Your task to perform on an android device: When is my next meeting? Image 0: 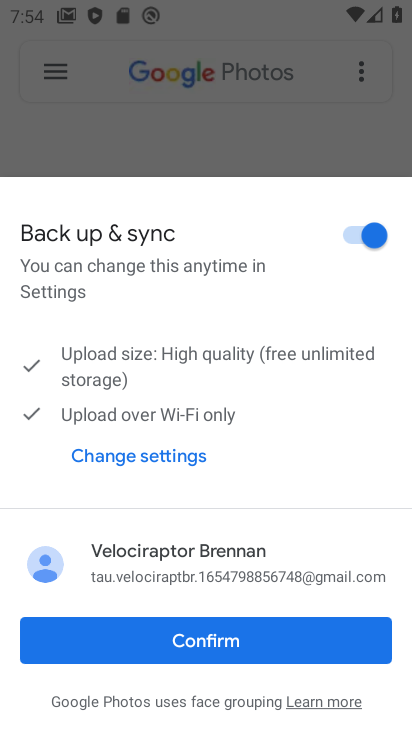
Step 0: press home button
Your task to perform on an android device: When is my next meeting? Image 1: 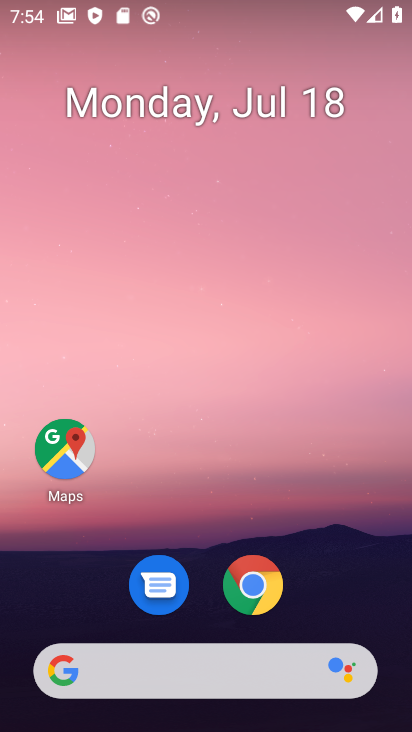
Step 1: drag from (160, 673) to (256, 65)
Your task to perform on an android device: When is my next meeting? Image 2: 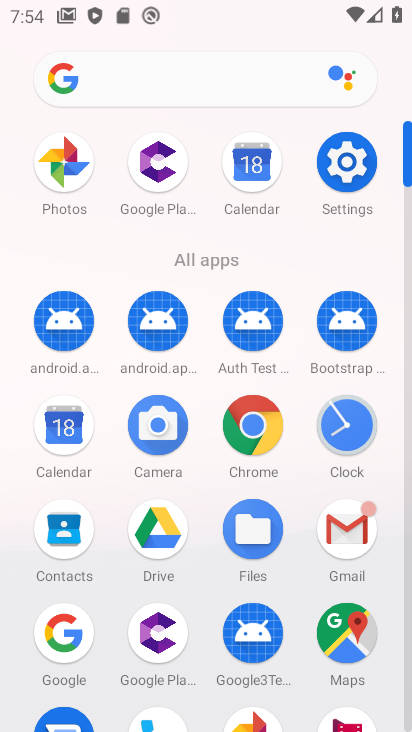
Step 2: click (66, 436)
Your task to perform on an android device: When is my next meeting? Image 3: 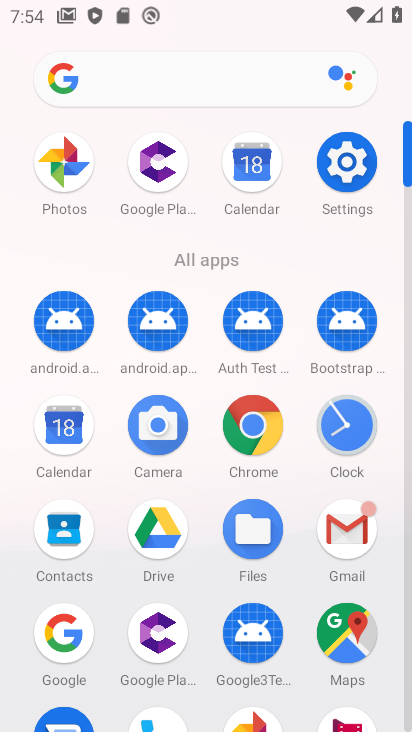
Step 3: click (65, 431)
Your task to perform on an android device: When is my next meeting? Image 4: 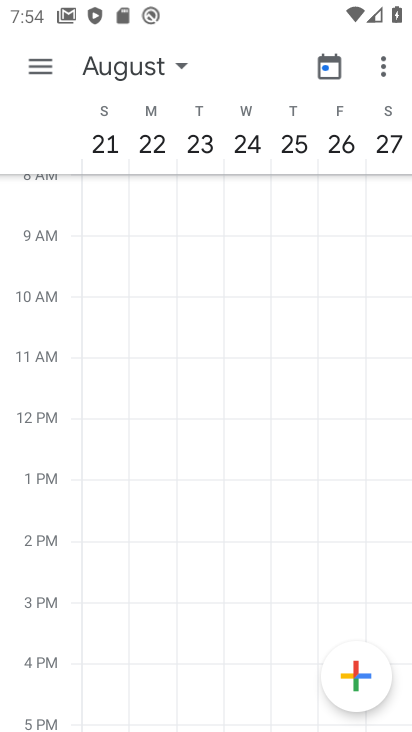
Step 4: click (118, 71)
Your task to perform on an android device: When is my next meeting? Image 5: 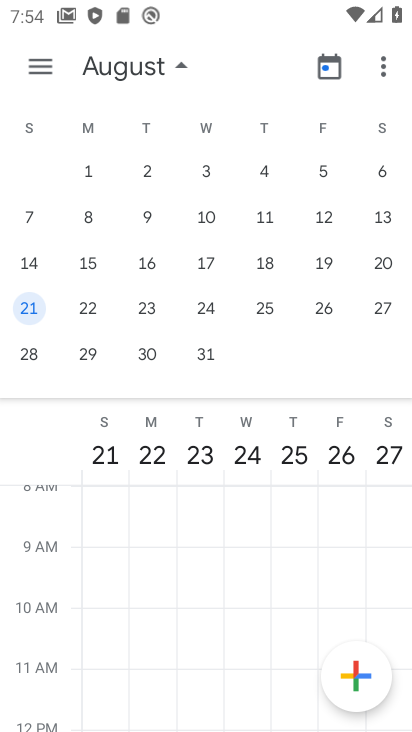
Step 5: drag from (71, 229) to (351, 206)
Your task to perform on an android device: When is my next meeting? Image 6: 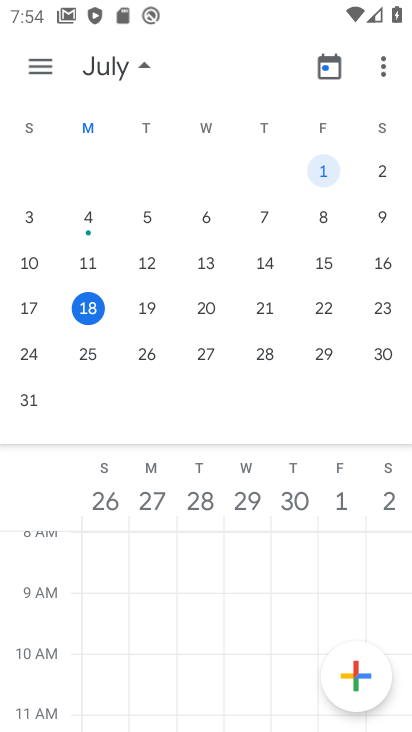
Step 6: click (91, 312)
Your task to perform on an android device: When is my next meeting? Image 7: 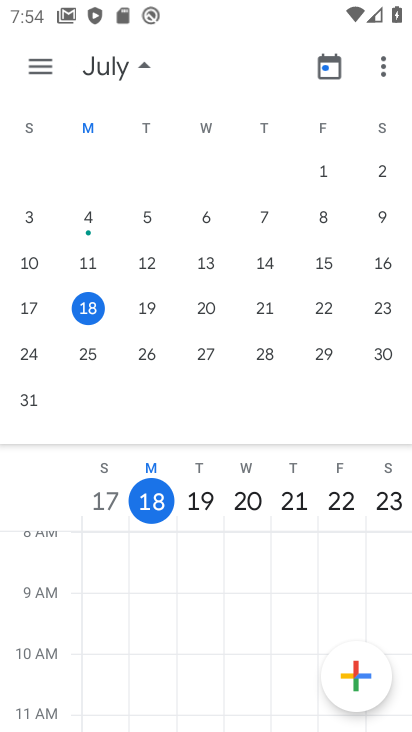
Step 7: click (36, 61)
Your task to perform on an android device: When is my next meeting? Image 8: 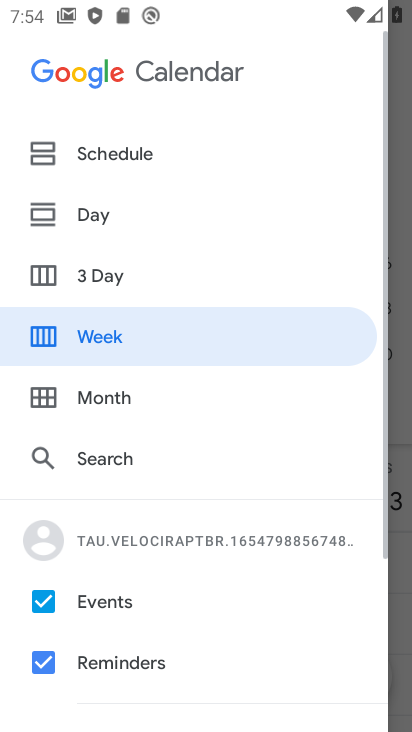
Step 8: click (126, 148)
Your task to perform on an android device: When is my next meeting? Image 9: 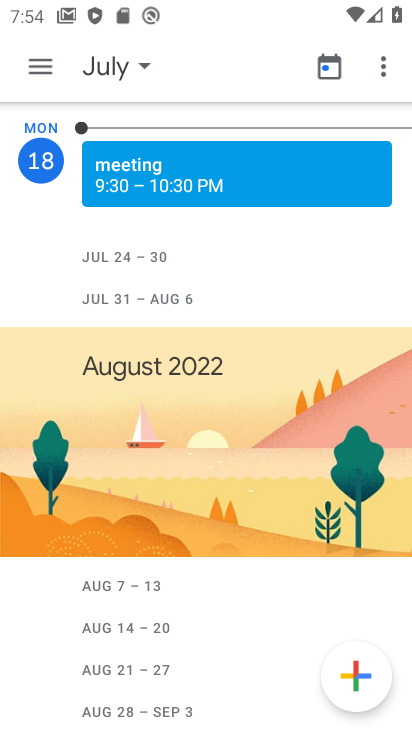
Step 9: drag from (199, 605) to (229, 559)
Your task to perform on an android device: When is my next meeting? Image 10: 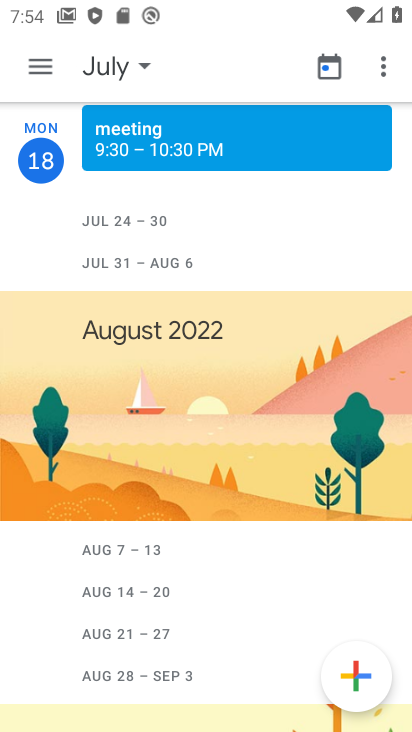
Step 10: click (228, 120)
Your task to perform on an android device: When is my next meeting? Image 11: 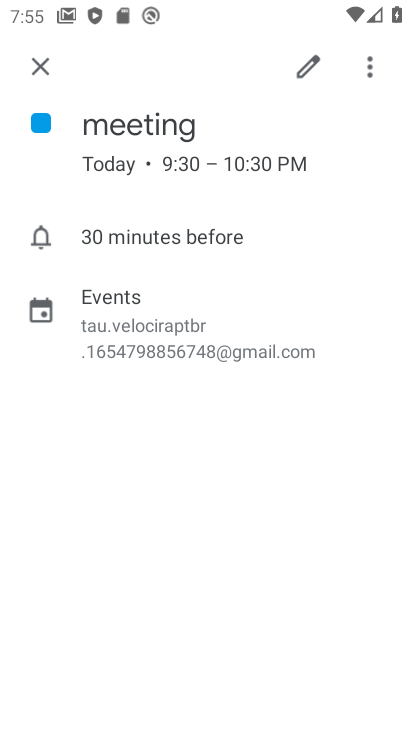
Step 11: task complete